Your task to perform on an android device: What's the weather? Image 0: 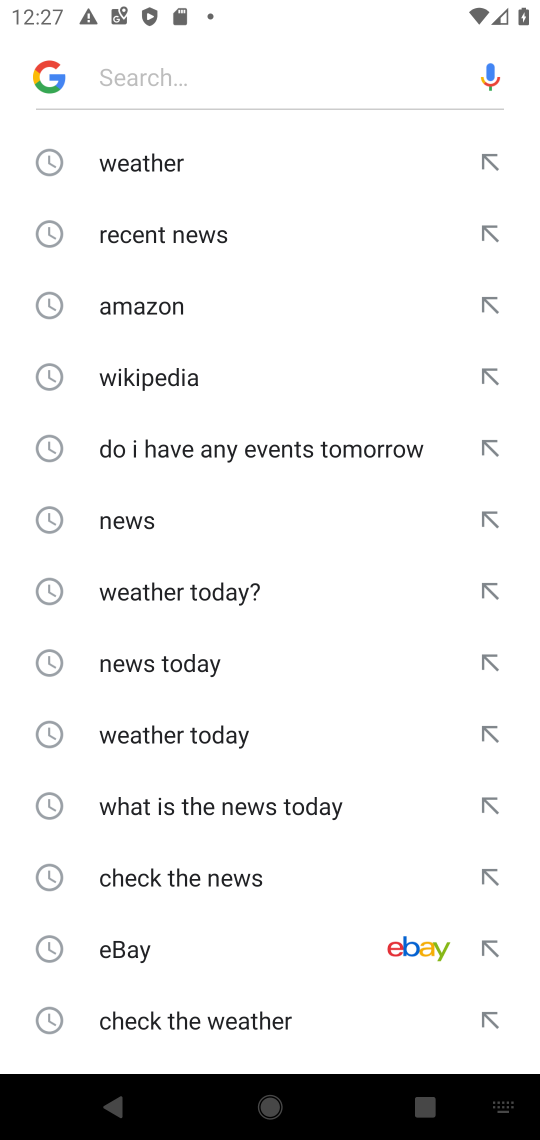
Step 0: press home button
Your task to perform on an android device: What's the weather? Image 1: 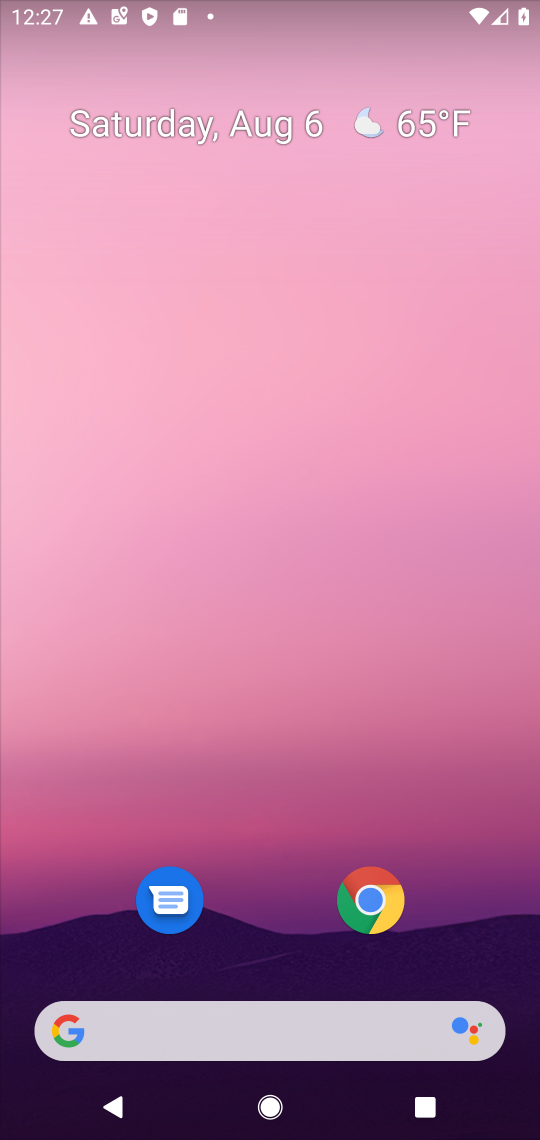
Step 1: drag from (256, 423) to (240, 87)
Your task to perform on an android device: What's the weather? Image 2: 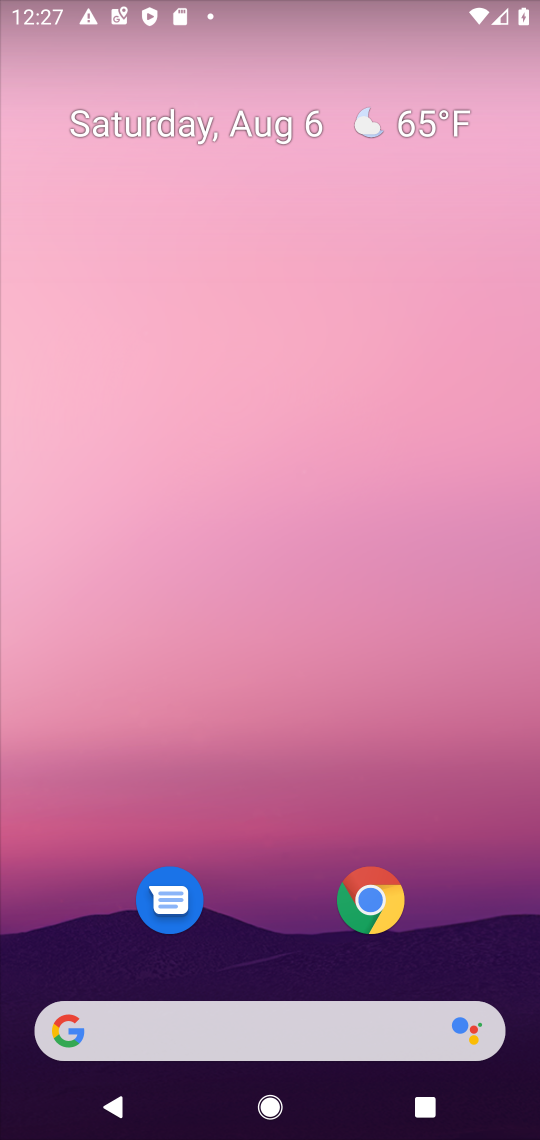
Step 2: drag from (265, 984) to (263, 156)
Your task to perform on an android device: What's the weather? Image 3: 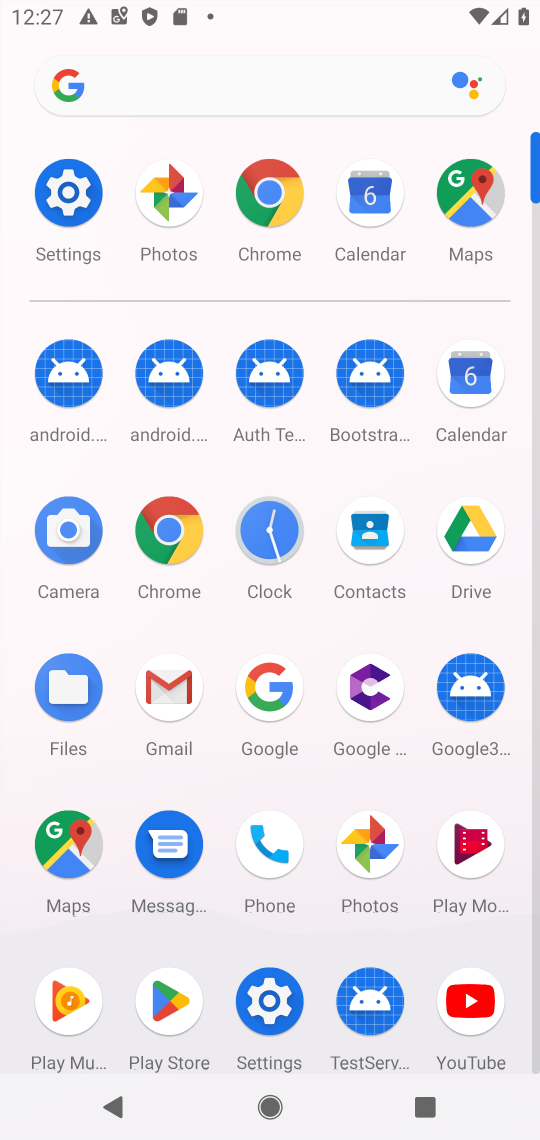
Step 3: click (269, 697)
Your task to perform on an android device: What's the weather? Image 4: 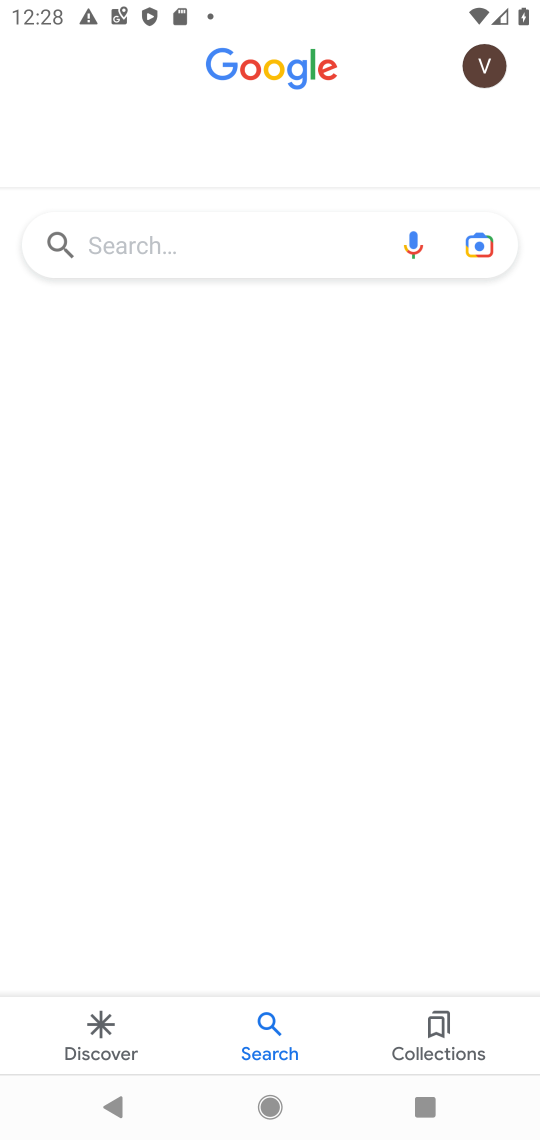
Step 4: click (265, 697)
Your task to perform on an android device: What's the weather? Image 5: 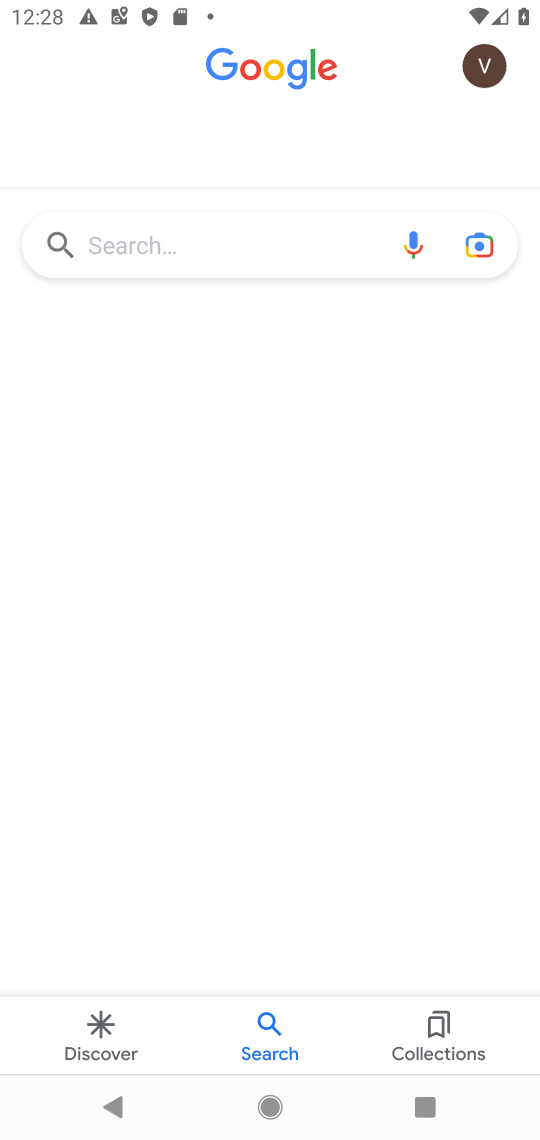
Step 5: click (220, 276)
Your task to perform on an android device: What's the weather? Image 6: 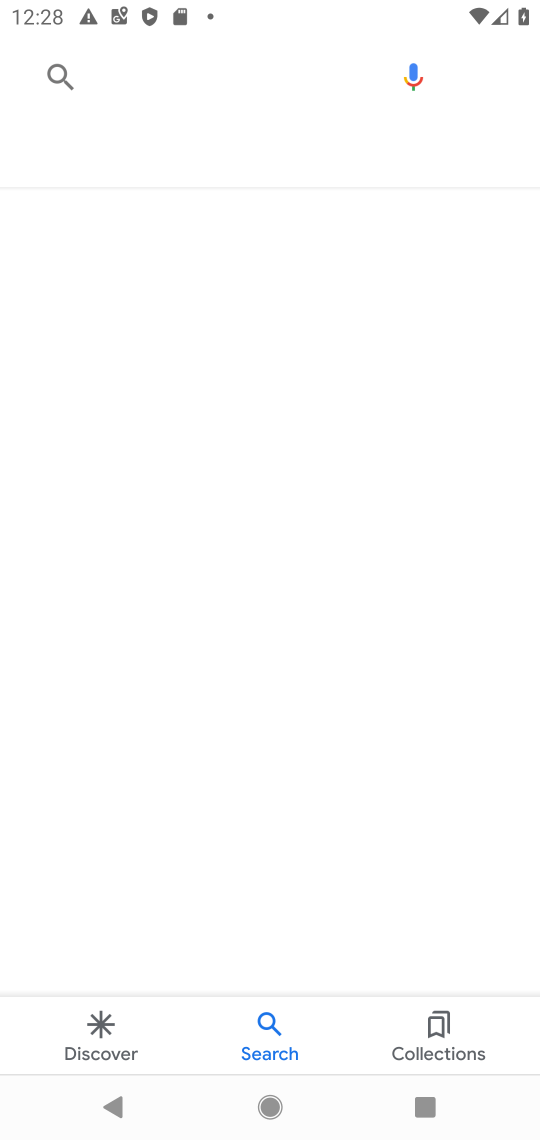
Step 6: click (215, 285)
Your task to perform on an android device: What's the weather? Image 7: 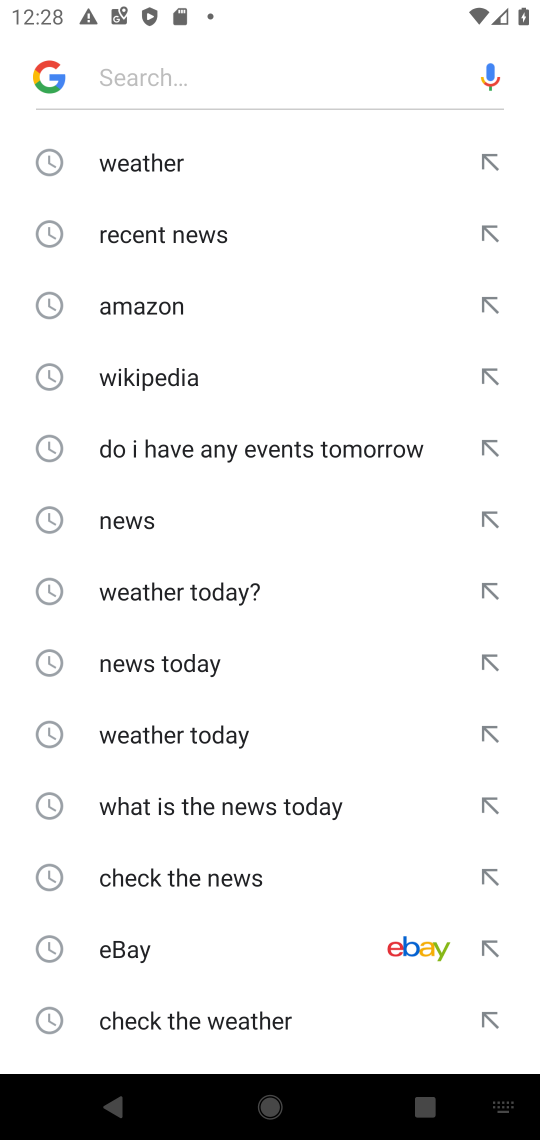
Step 7: click (137, 158)
Your task to perform on an android device: What's the weather? Image 8: 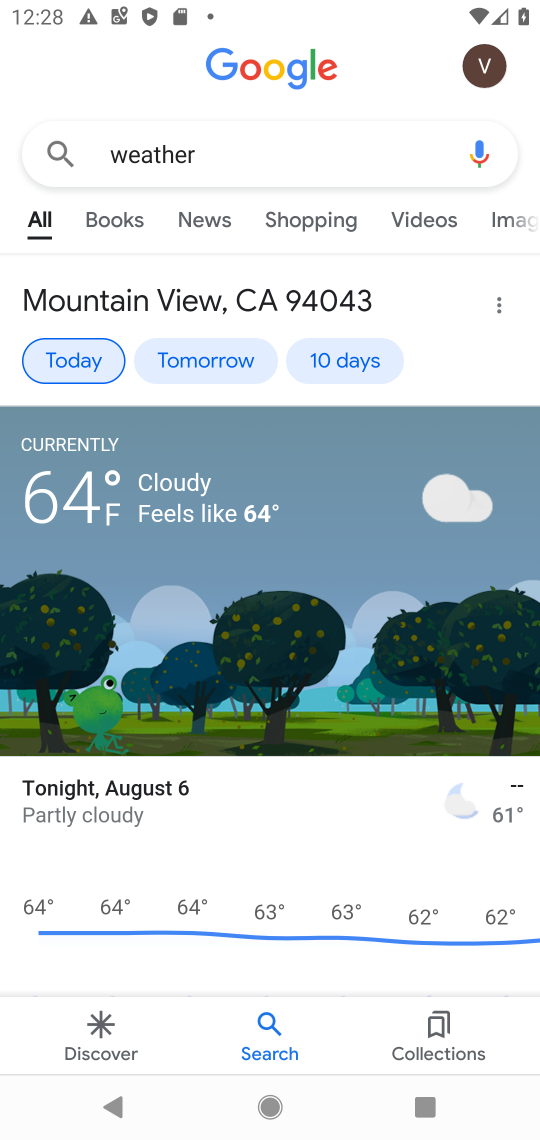
Step 8: click (60, 360)
Your task to perform on an android device: What's the weather? Image 9: 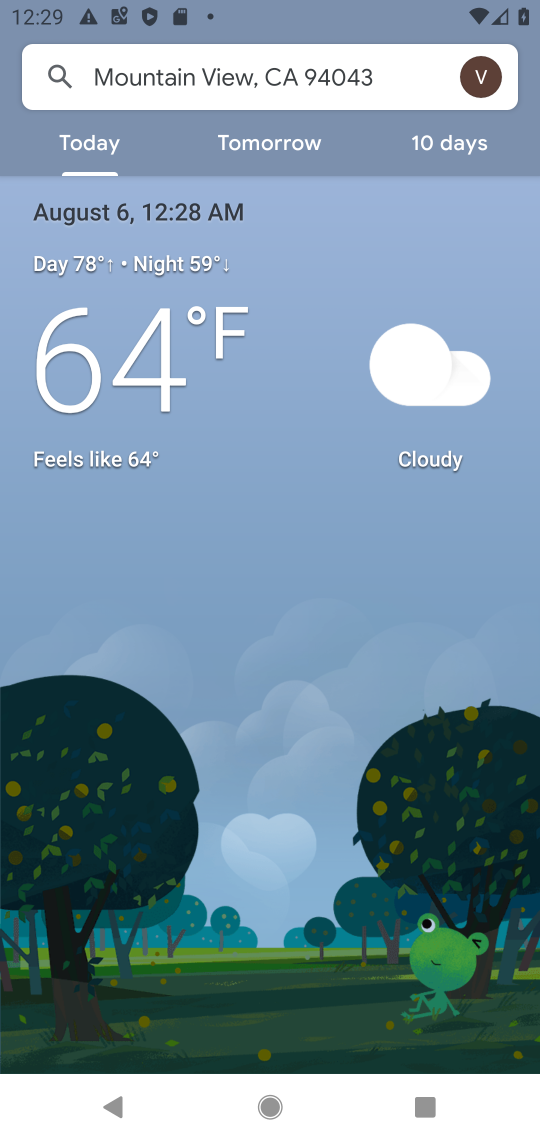
Step 9: task complete